Your task to perform on an android device: turn off wifi Image 0: 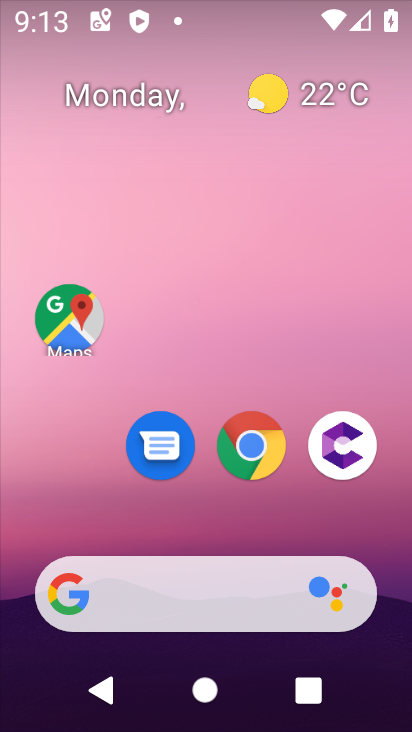
Step 0: drag from (220, 12) to (173, 715)
Your task to perform on an android device: turn off wifi Image 1: 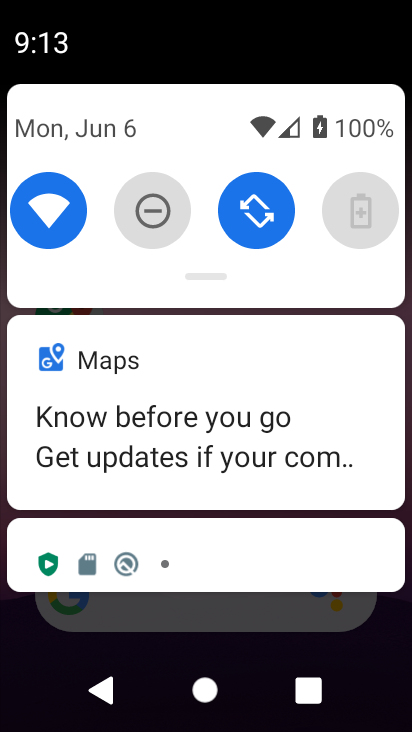
Step 1: click (49, 201)
Your task to perform on an android device: turn off wifi Image 2: 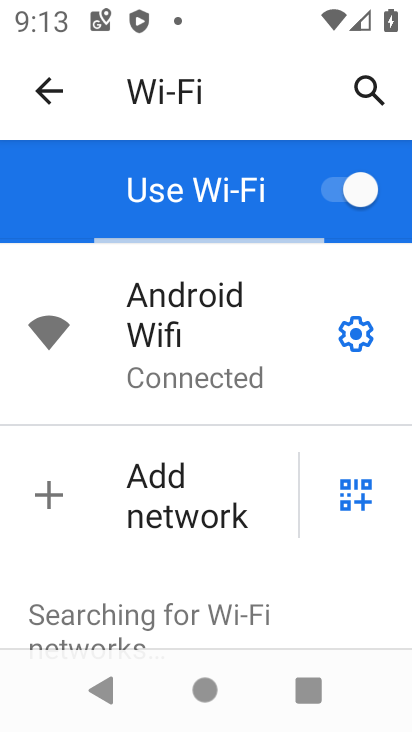
Step 2: click (355, 199)
Your task to perform on an android device: turn off wifi Image 3: 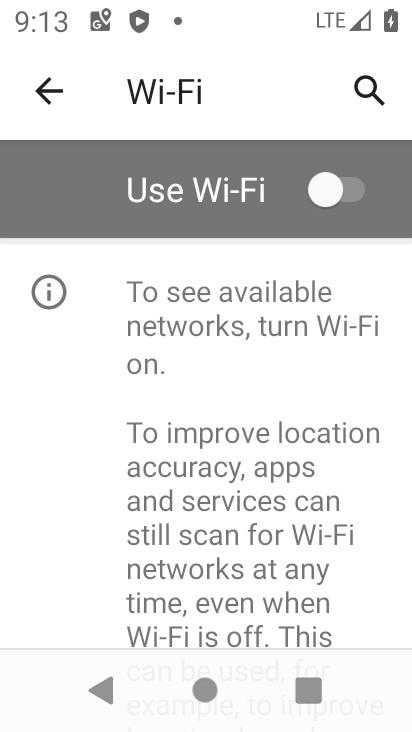
Step 3: task complete